Your task to perform on an android device: add a contact Image 0: 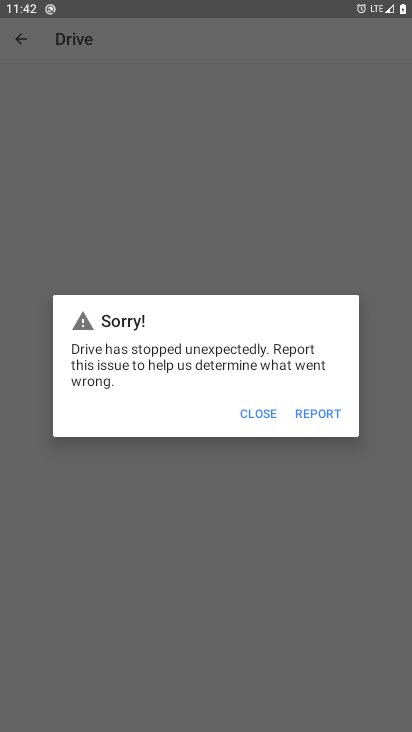
Step 0: press home button
Your task to perform on an android device: add a contact Image 1: 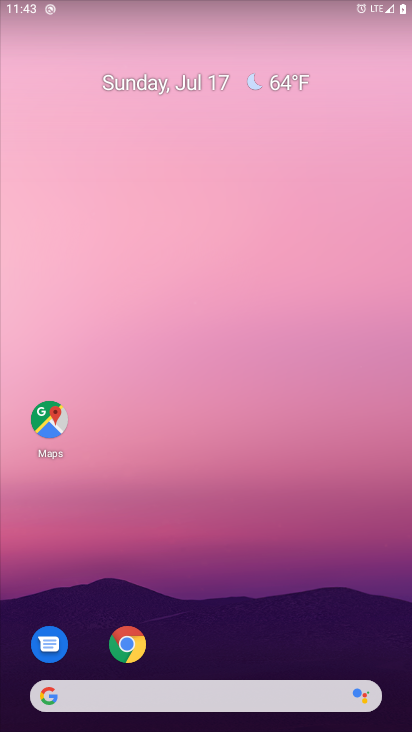
Step 1: press home button
Your task to perform on an android device: add a contact Image 2: 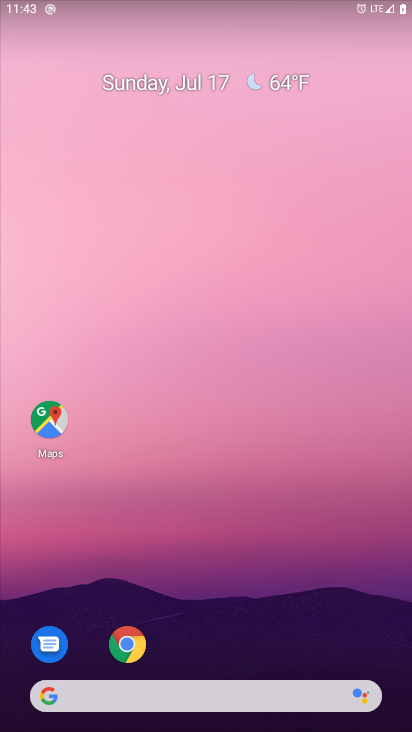
Step 2: drag from (323, 191) to (335, 110)
Your task to perform on an android device: add a contact Image 3: 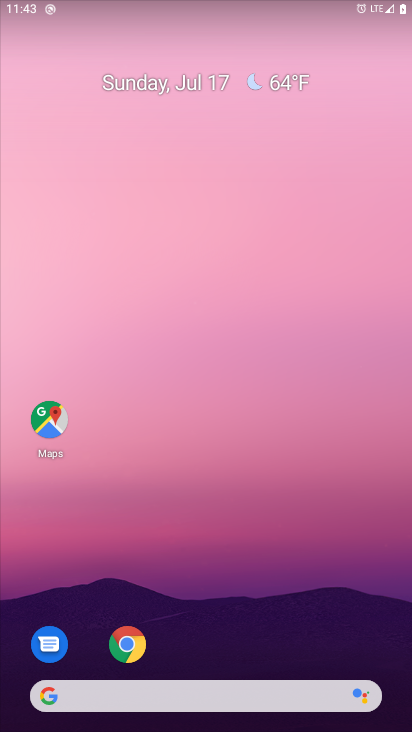
Step 3: drag from (260, 414) to (303, 47)
Your task to perform on an android device: add a contact Image 4: 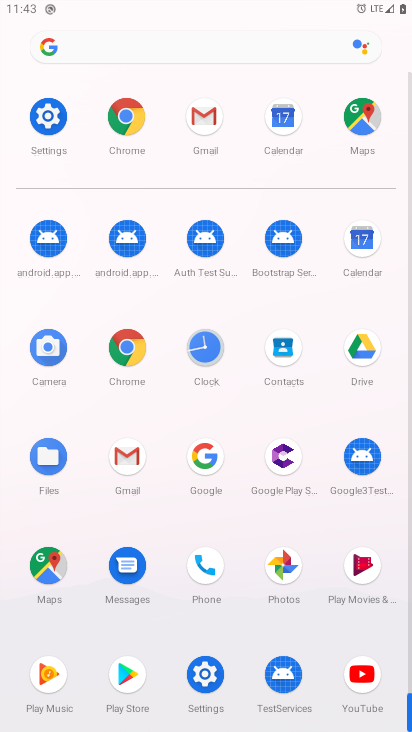
Step 4: click (281, 351)
Your task to perform on an android device: add a contact Image 5: 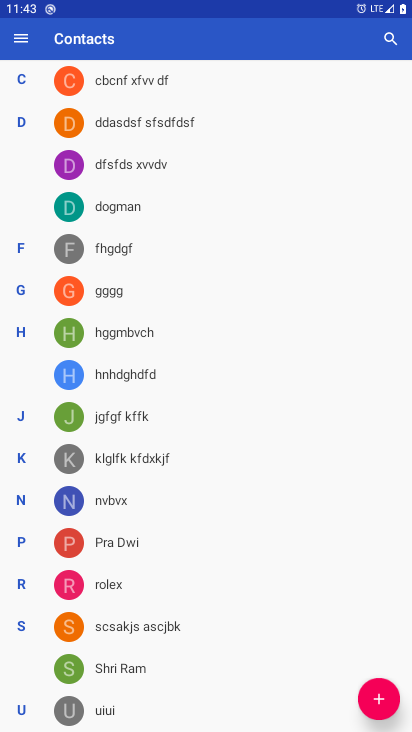
Step 5: click (365, 701)
Your task to perform on an android device: add a contact Image 6: 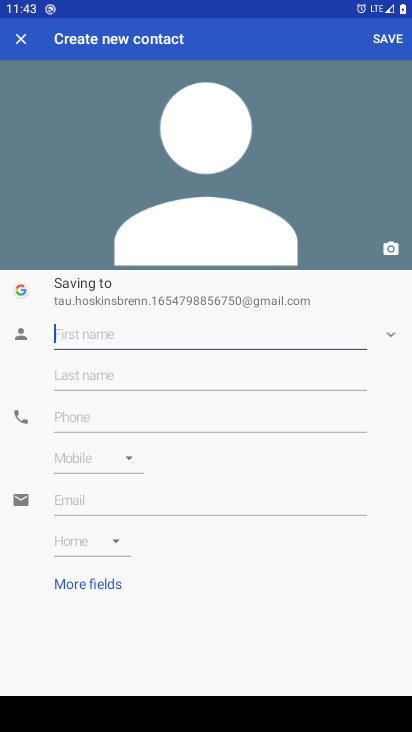
Step 6: type "ggegrtg"
Your task to perform on an android device: add a contact Image 7: 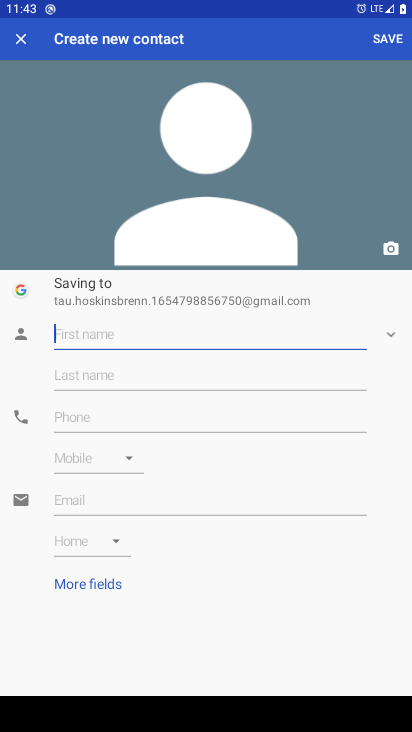
Step 7: click (108, 341)
Your task to perform on an android device: add a contact Image 8: 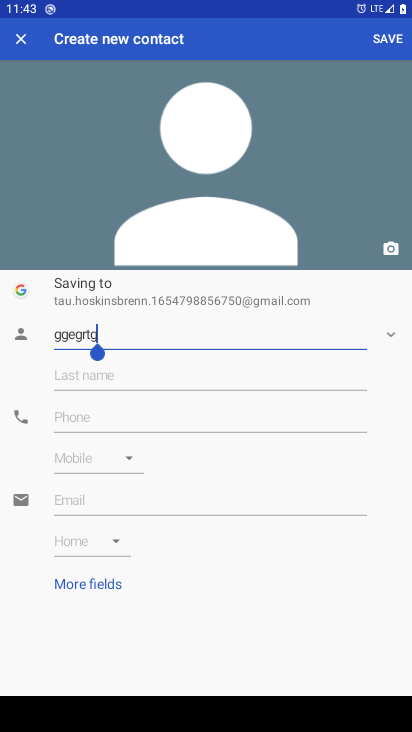
Step 8: click (173, 420)
Your task to perform on an android device: add a contact Image 9: 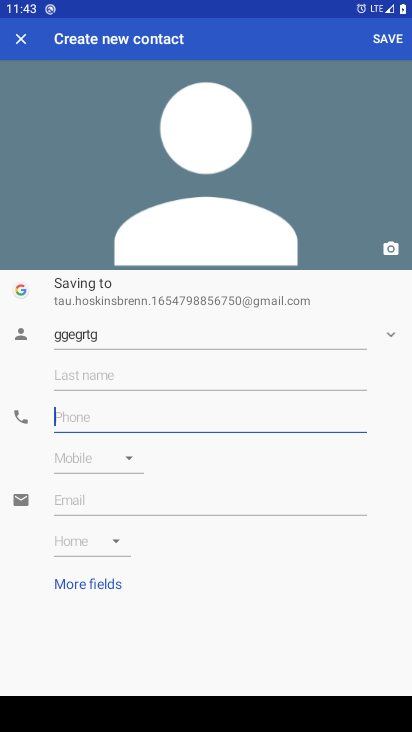
Step 9: type "5454454545"
Your task to perform on an android device: add a contact Image 10: 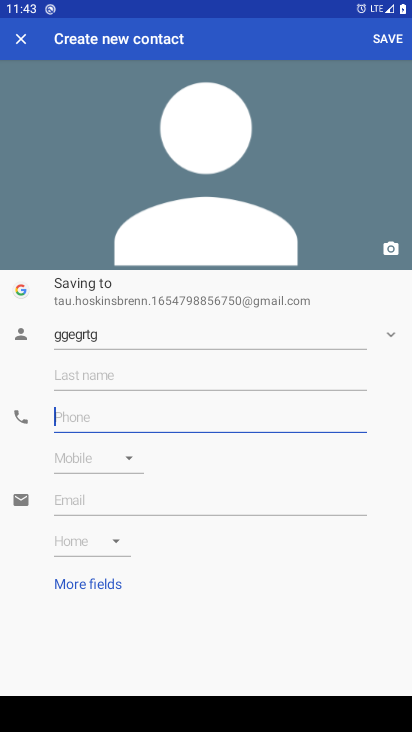
Step 10: click (162, 420)
Your task to perform on an android device: add a contact Image 11: 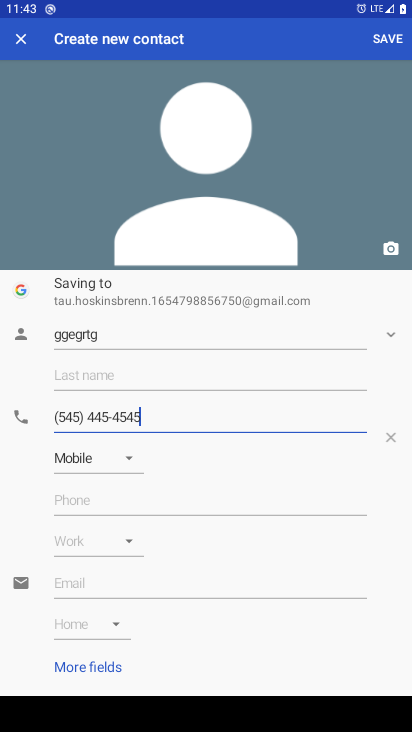
Step 11: click (380, 41)
Your task to perform on an android device: add a contact Image 12: 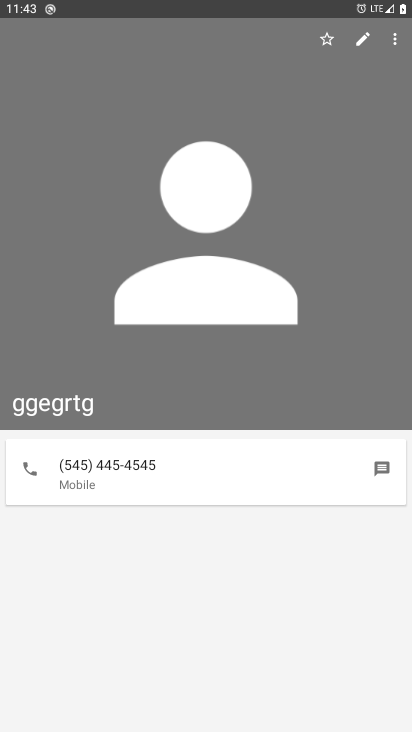
Step 12: task complete